Your task to perform on an android device: turn off notifications in google photos Image 0: 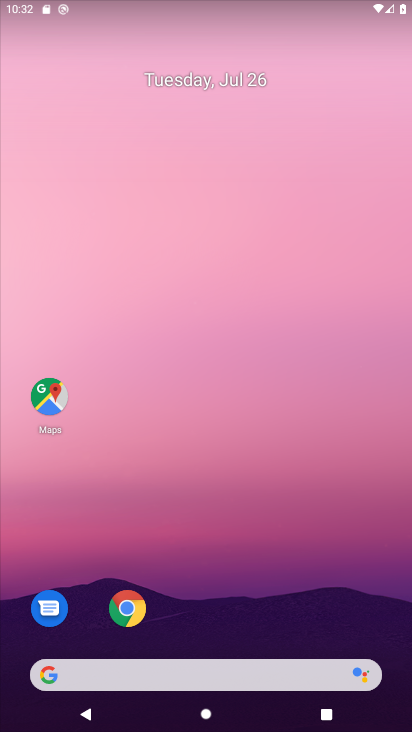
Step 0: drag from (309, 576) to (298, 97)
Your task to perform on an android device: turn off notifications in google photos Image 1: 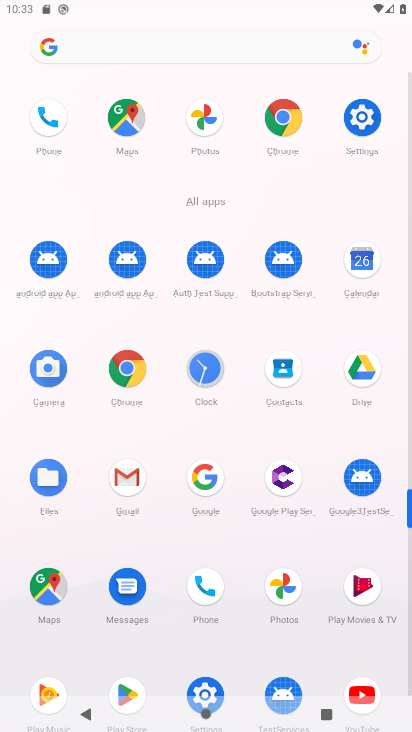
Step 1: click (279, 579)
Your task to perform on an android device: turn off notifications in google photos Image 2: 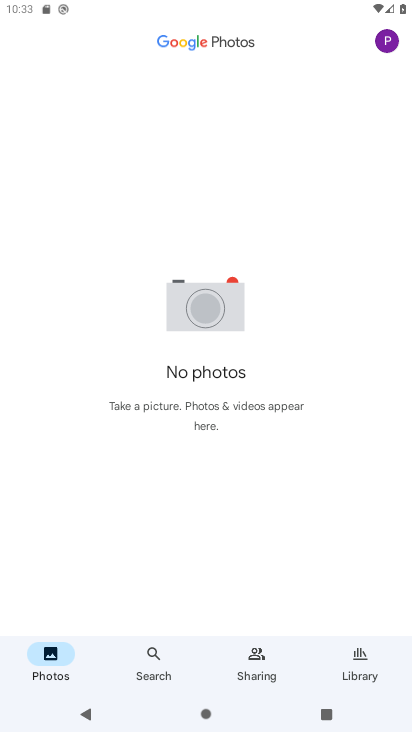
Step 2: click (393, 44)
Your task to perform on an android device: turn off notifications in google photos Image 3: 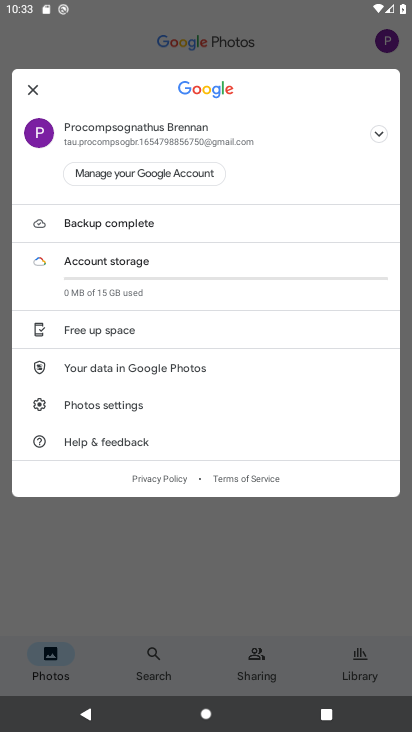
Step 3: click (97, 401)
Your task to perform on an android device: turn off notifications in google photos Image 4: 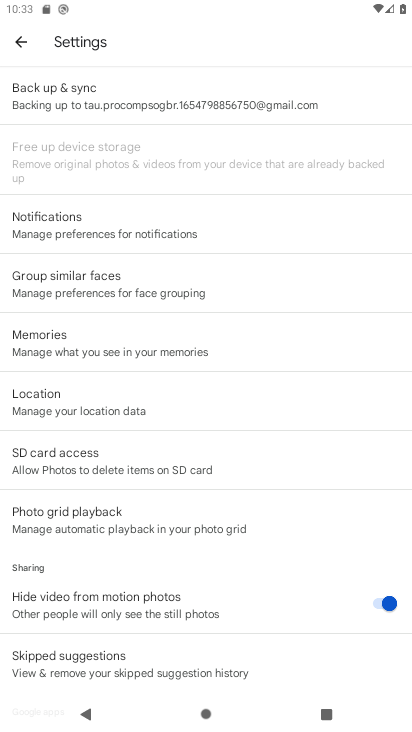
Step 4: click (121, 234)
Your task to perform on an android device: turn off notifications in google photos Image 5: 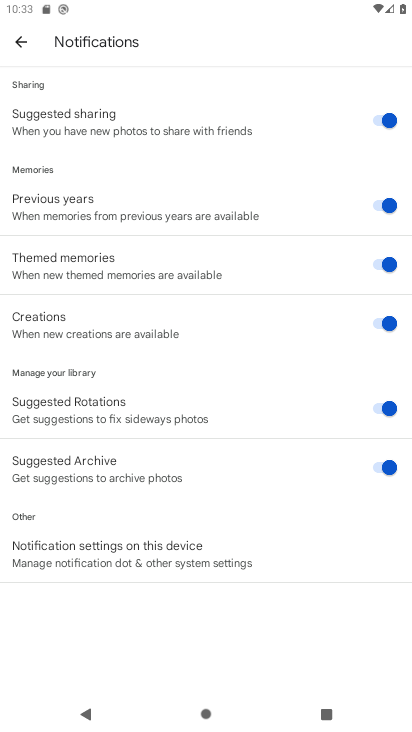
Step 5: click (147, 556)
Your task to perform on an android device: turn off notifications in google photos Image 6: 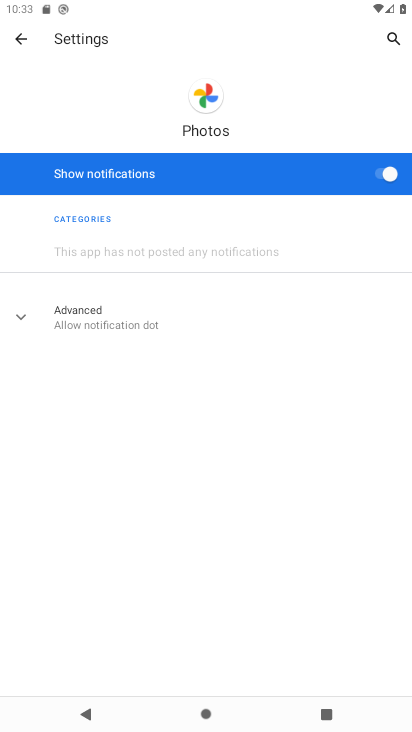
Step 6: click (382, 177)
Your task to perform on an android device: turn off notifications in google photos Image 7: 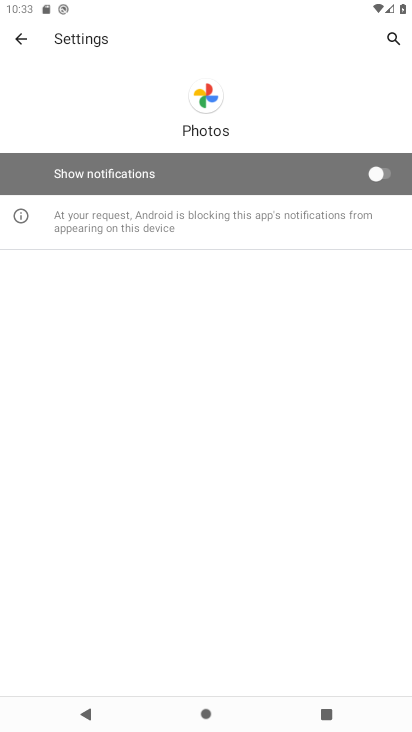
Step 7: task complete